Your task to perform on an android device: Go to battery settings Image 0: 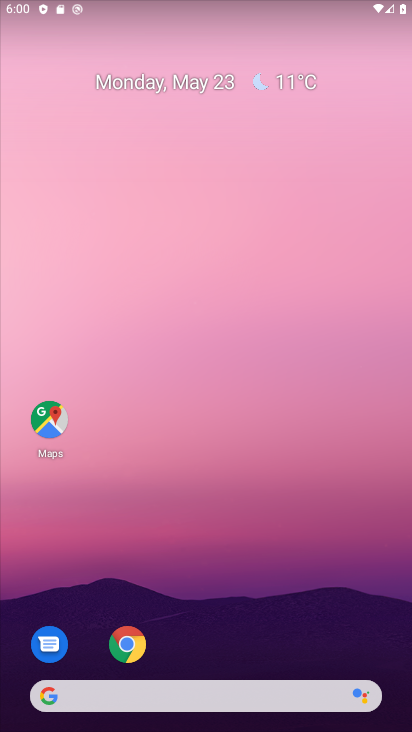
Step 0: drag from (215, 637) to (210, 280)
Your task to perform on an android device: Go to battery settings Image 1: 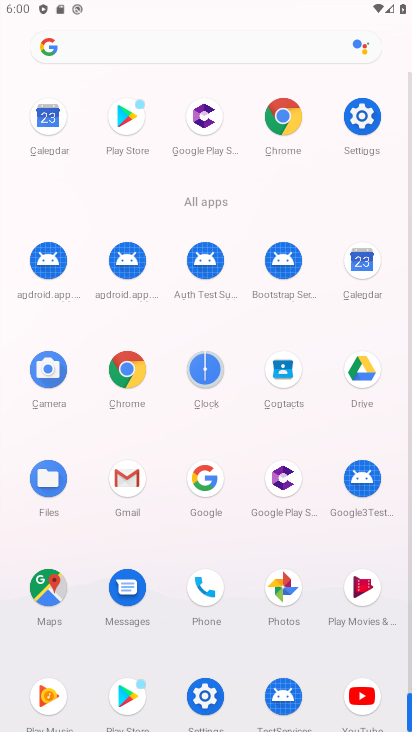
Step 1: click (370, 111)
Your task to perform on an android device: Go to battery settings Image 2: 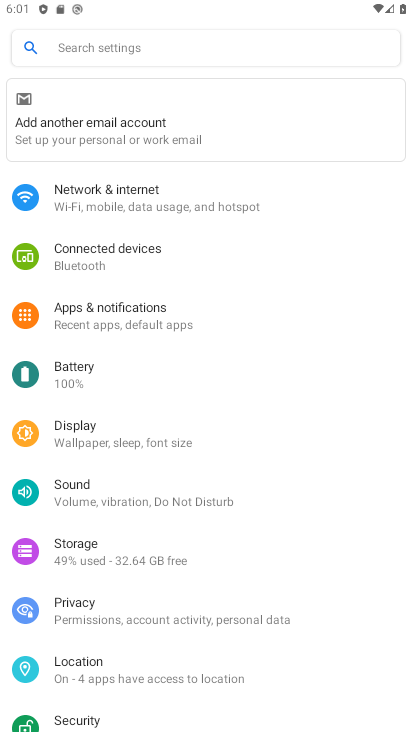
Step 2: click (96, 391)
Your task to perform on an android device: Go to battery settings Image 3: 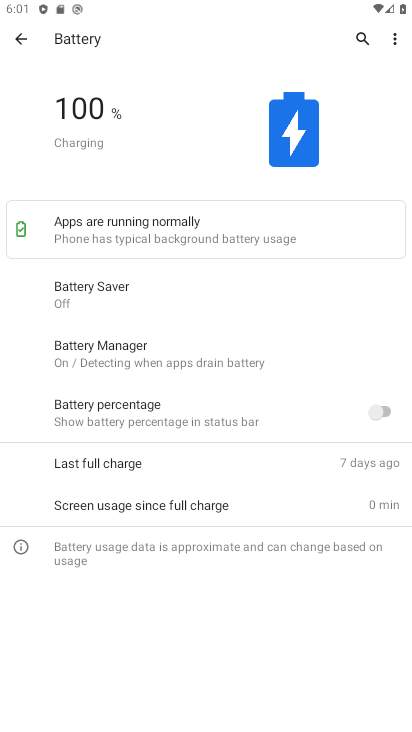
Step 3: task complete